Your task to perform on an android device: Open Google Chrome Image 0: 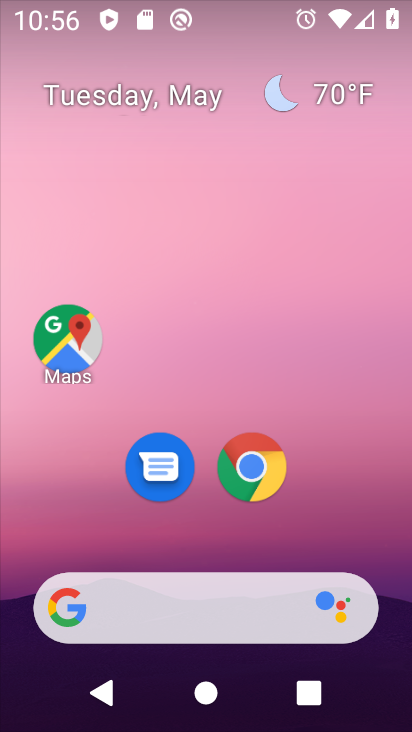
Step 0: click (246, 481)
Your task to perform on an android device: Open Google Chrome Image 1: 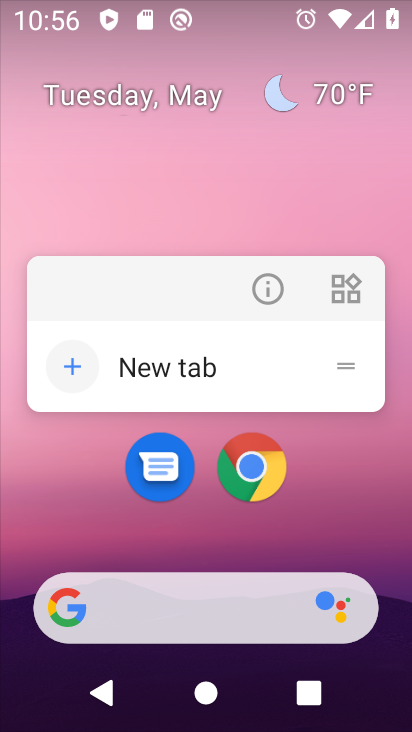
Step 1: click (246, 481)
Your task to perform on an android device: Open Google Chrome Image 2: 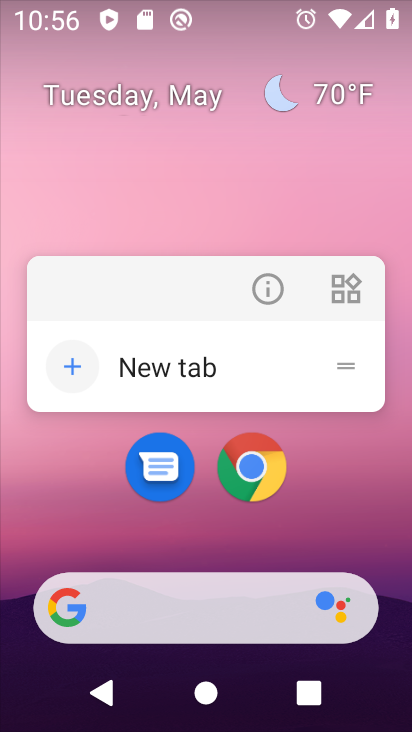
Step 2: click (278, 456)
Your task to perform on an android device: Open Google Chrome Image 3: 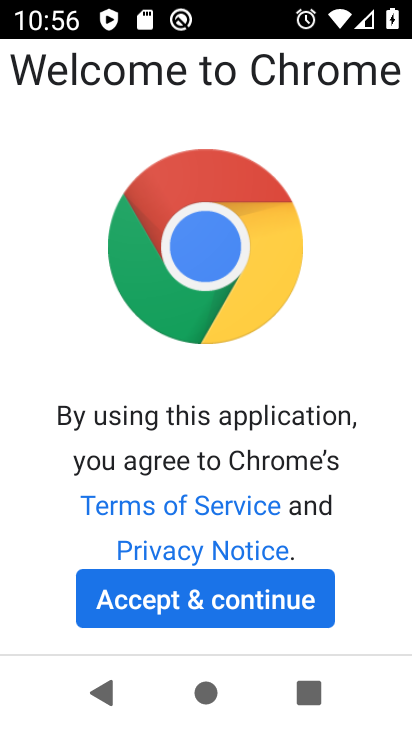
Step 3: click (193, 609)
Your task to perform on an android device: Open Google Chrome Image 4: 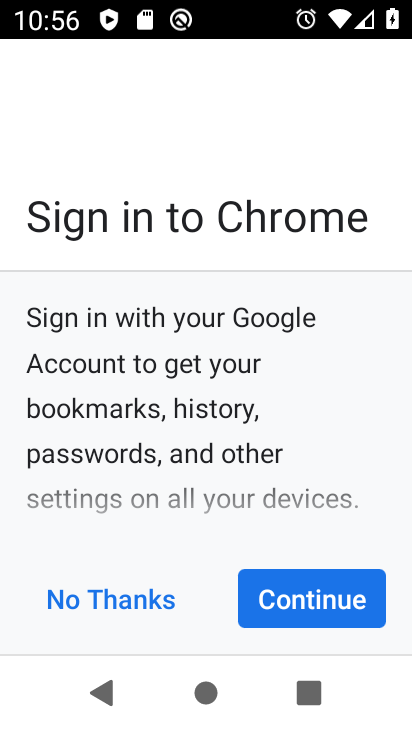
Step 4: click (282, 614)
Your task to perform on an android device: Open Google Chrome Image 5: 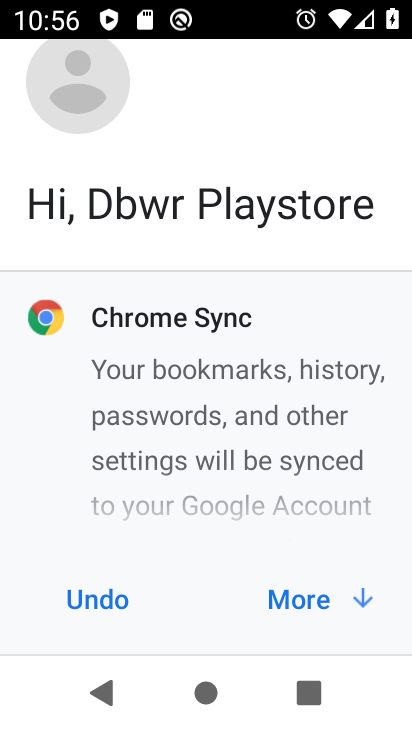
Step 5: click (282, 614)
Your task to perform on an android device: Open Google Chrome Image 6: 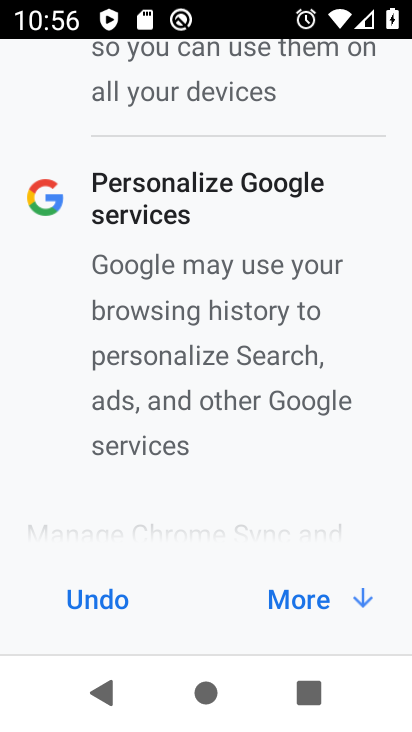
Step 6: click (282, 614)
Your task to perform on an android device: Open Google Chrome Image 7: 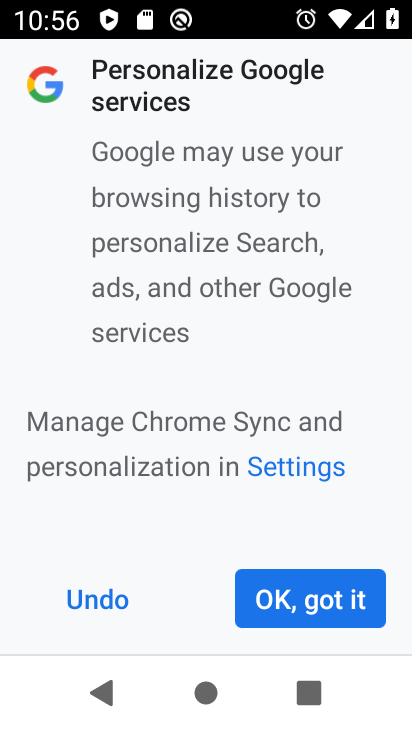
Step 7: click (282, 614)
Your task to perform on an android device: Open Google Chrome Image 8: 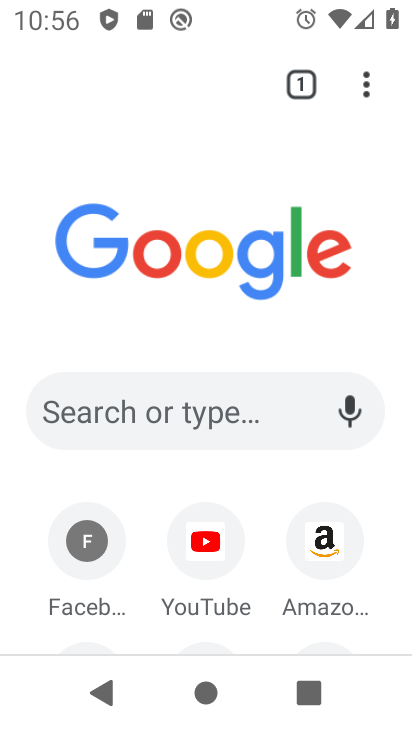
Step 8: task complete